Your task to perform on an android device: allow notifications from all sites in the chrome app Image 0: 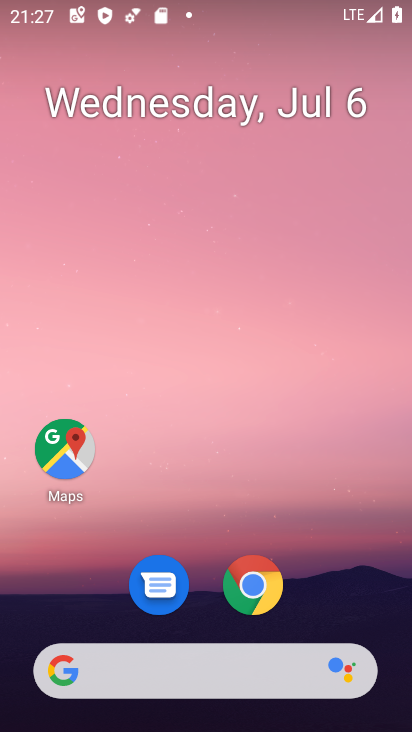
Step 0: click (250, 587)
Your task to perform on an android device: allow notifications from all sites in the chrome app Image 1: 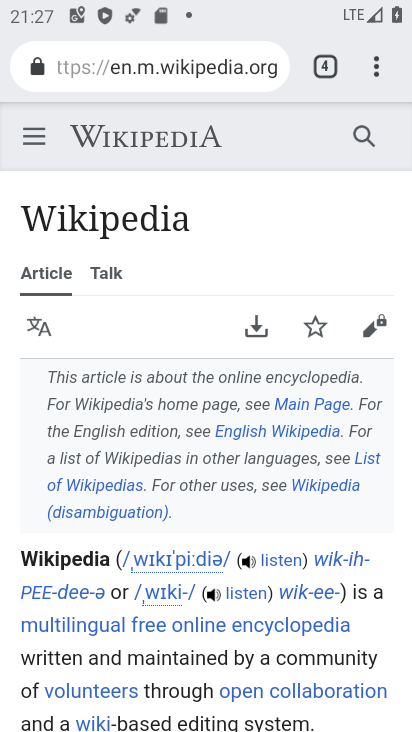
Step 1: click (377, 67)
Your task to perform on an android device: allow notifications from all sites in the chrome app Image 2: 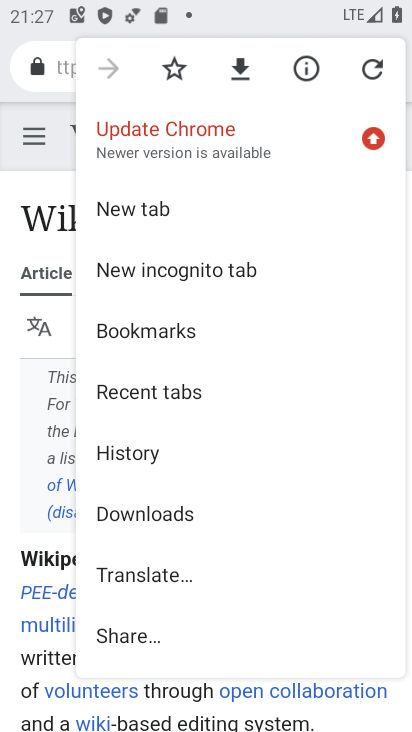
Step 2: drag from (245, 599) to (258, 147)
Your task to perform on an android device: allow notifications from all sites in the chrome app Image 3: 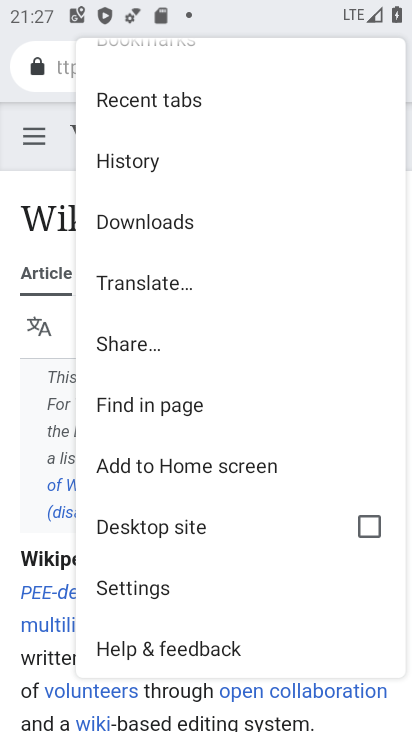
Step 3: click (143, 581)
Your task to perform on an android device: allow notifications from all sites in the chrome app Image 4: 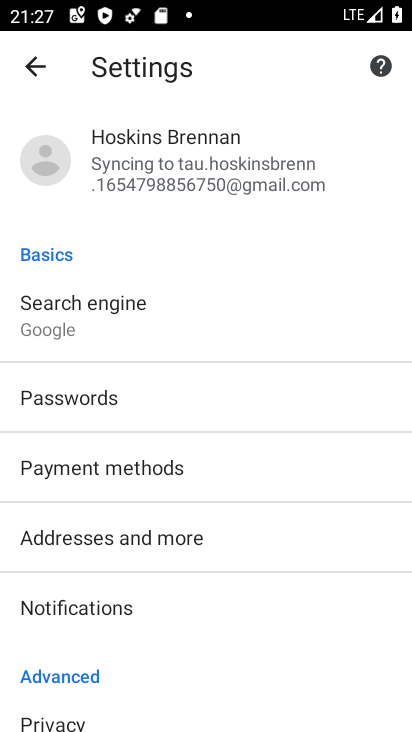
Step 4: click (100, 604)
Your task to perform on an android device: allow notifications from all sites in the chrome app Image 5: 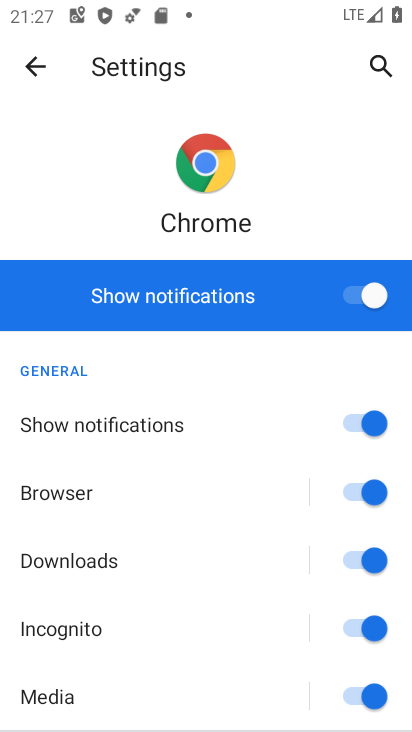
Step 5: task complete